Your task to perform on an android device: turn on priority inbox in the gmail app Image 0: 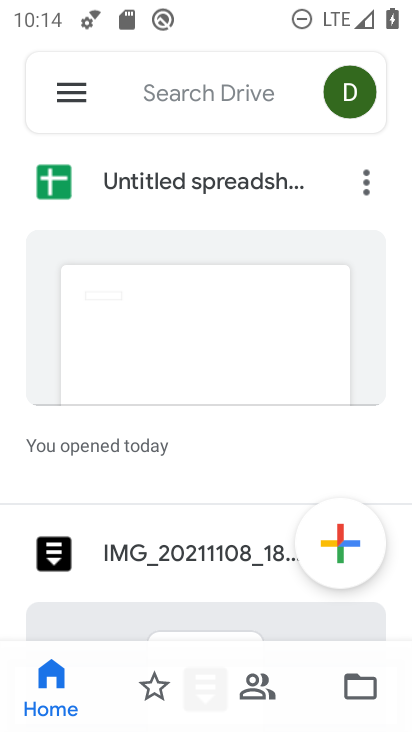
Step 0: press home button
Your task to perform on an android device: turn on priority inbox in the gmail app Image 1: 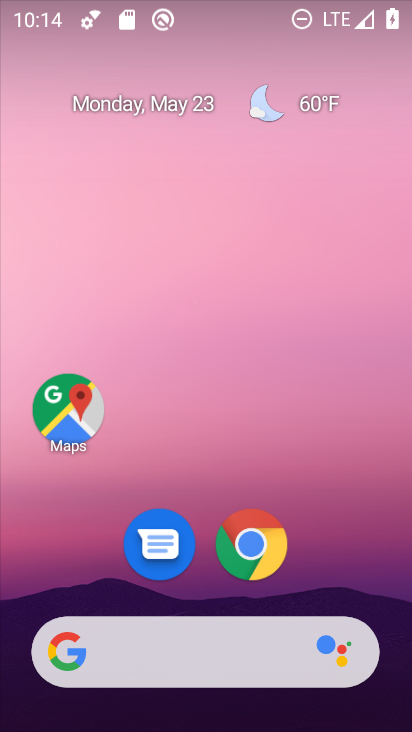
Step 1: drag from (319, 545) to (210, 308)
Your task to perform on an android device: turn on priority inbox in the gmail app Image 2: 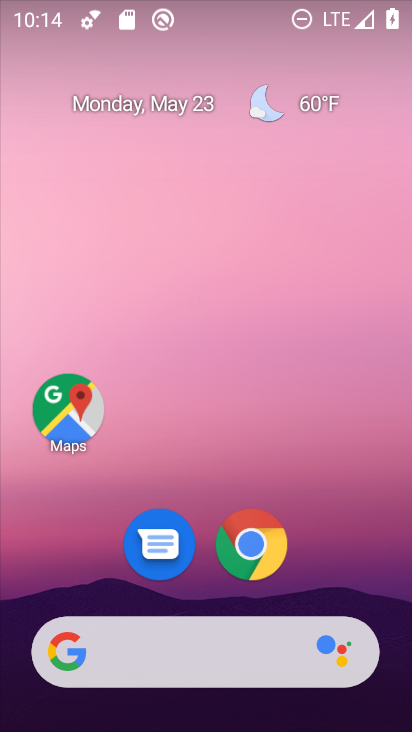
Step 2: drag from (326, 562) to (193, 248)
Your task to perform on an android device: turn on priority inbox in the gmail app Image 3: 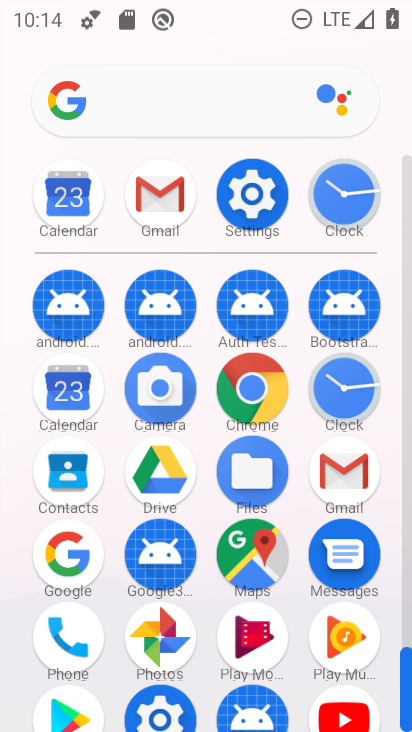
Step 3: click (174, 193)
Your task to perform on an android device: turn on priority inbox in the gmail app Image 4: 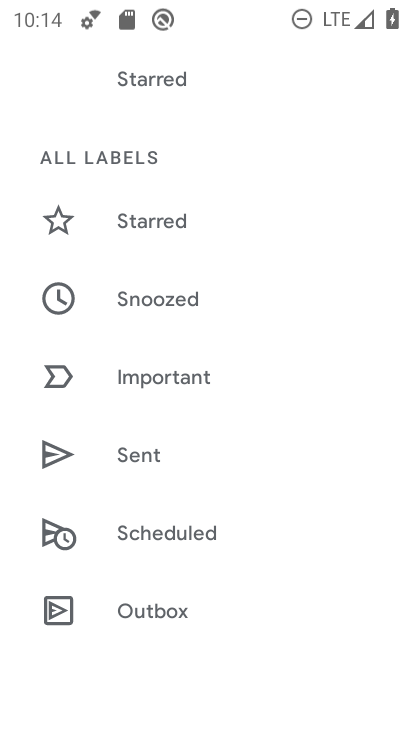
Step 4: drag from (214, 621) to (183, 115)
Your task to perform on an android device: turn on priority inbox in the gmail app Image 5: 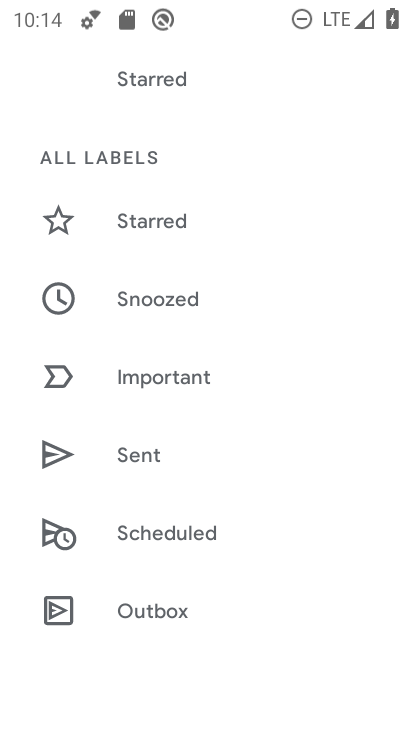
Step 5: drag from (276, 558) to (311, 128)
Your task to perform on an android device: turn on priority inbox in the gmail app Image 6: 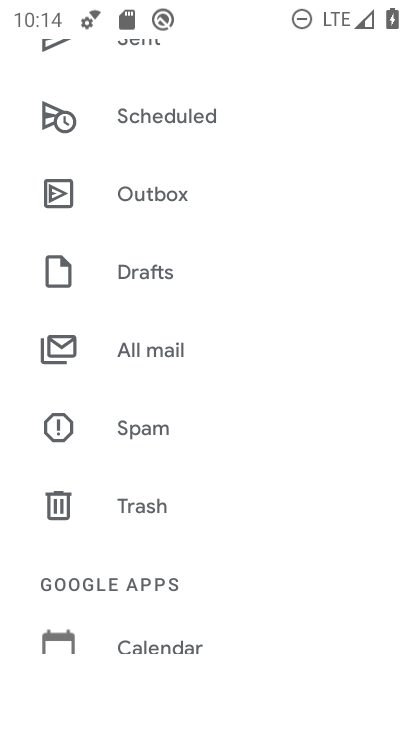
Step 6: drag from (281, 626) to (296, 99)
Your task to perform on an android device: turn on priority inbox in the gmail app Image 7: 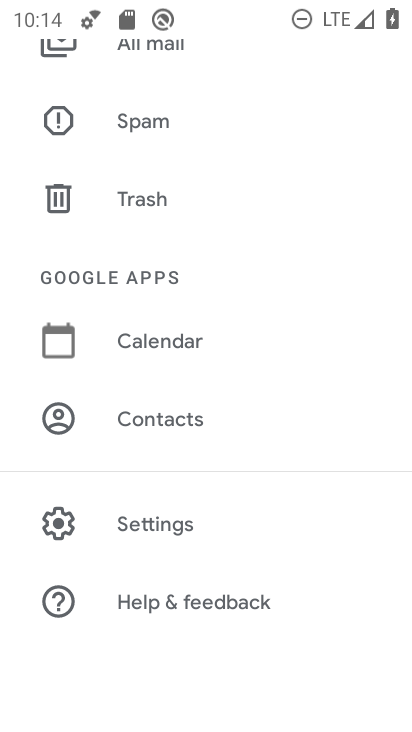
Step 7: click (129, 527)
Your task to perform on an android device: turn on priority inbox in the gmail app Image 8: 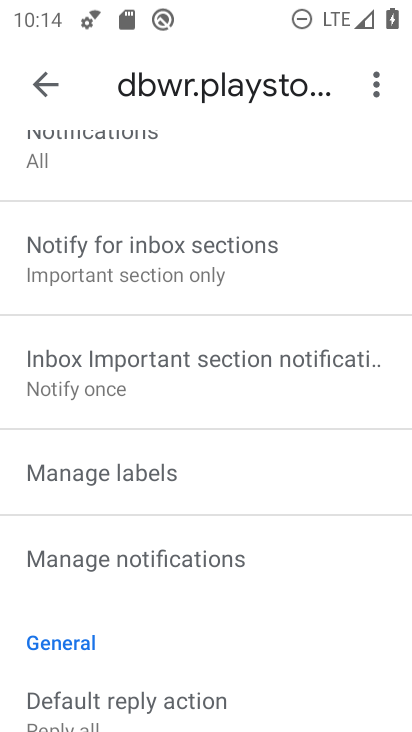
Step 8: task complete